Your task to perform on an android device: Set the phone to "Do not disturb". Image 0: 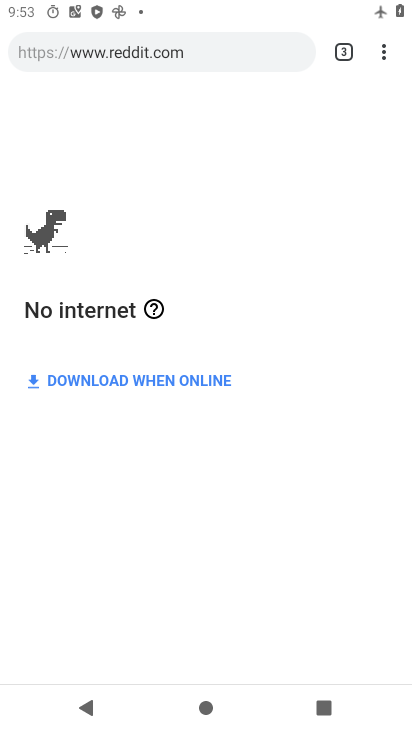
Step 0: press home button
Your task to perform on an android device: Set the phone to "Do not disturb". Image 1: 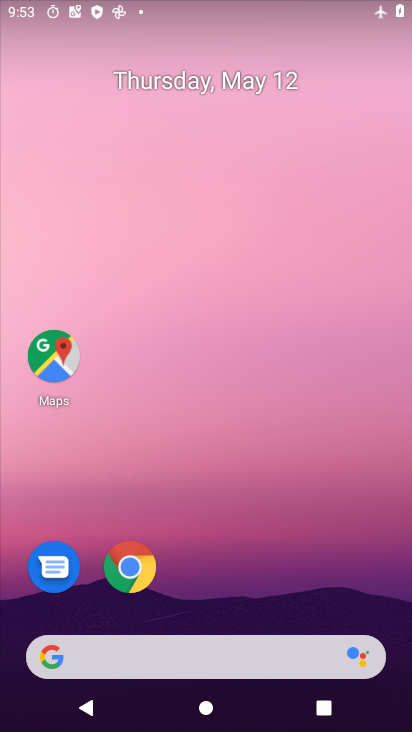
Step 1: drag from (198, 601) to (250, 169)
Your task to perform on an android device: Set the phone to "Do not disturb". Image 2: 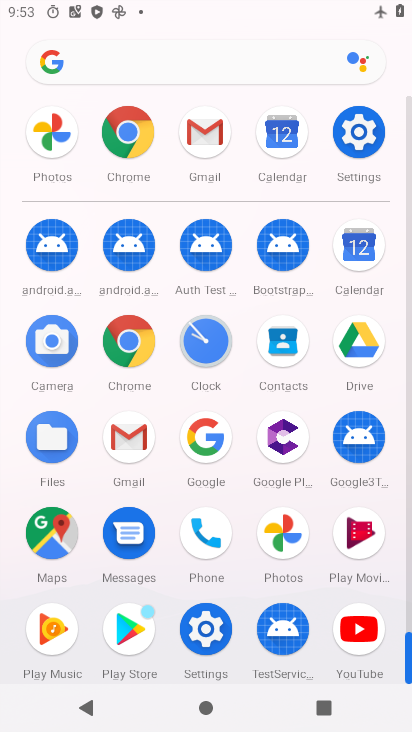
Step 2: drag from (284, 8) to (309, 327)
Your task to perform on an android device: Set the phone to "Do not disturb". Image 3: 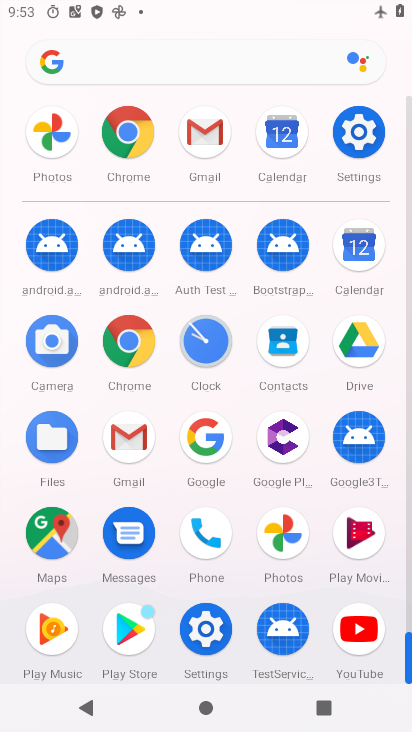
Step 3: drag from (225, 145) to (229, 405)
Your task to perform on an android device: Set the phone to "Do not disturb". Image 4: 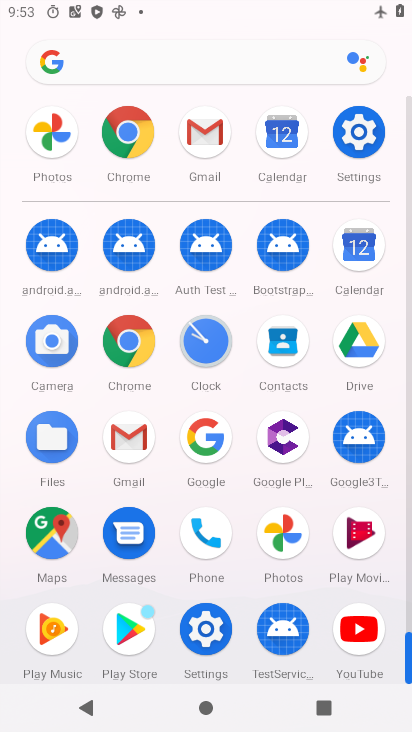
Step 4: drag from (278, 0) to (256, 438)
Your task to perform on an android device: Set the phone to "Do not disturb". Image 5: 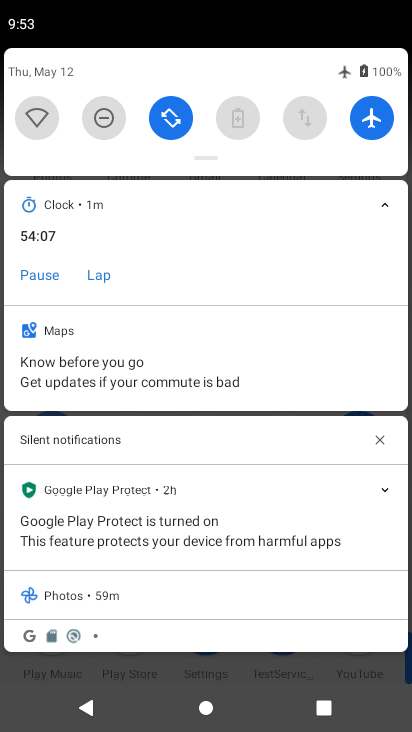
Step 5: drag from (211, 149) to (211, 457)
Your task to perform on an android device: Set the phone to "Do not disturb". Image 6: 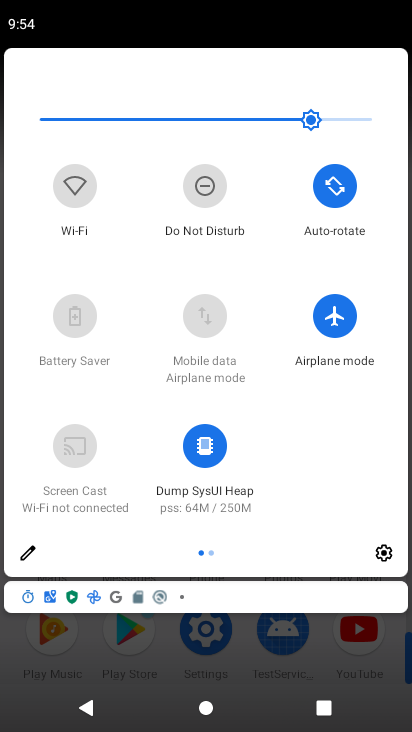
Step 6: click (207, 177)
Your task to perform on an android device: Set the phone to "Do not disturb". Image 7: 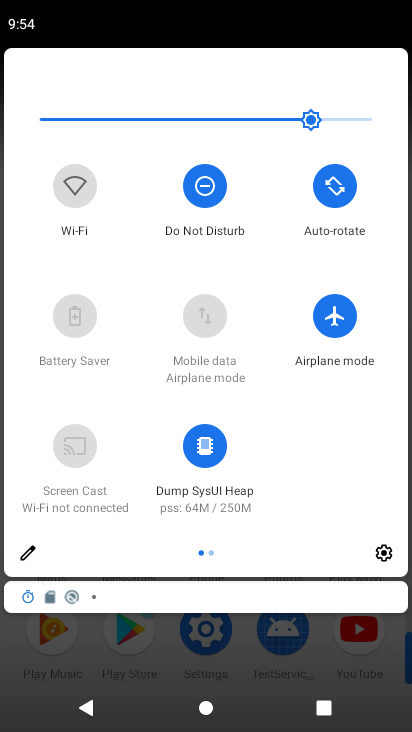
Step 7: task complete